Your task to perform on an android device: turn off improve location accuracy Image 0: 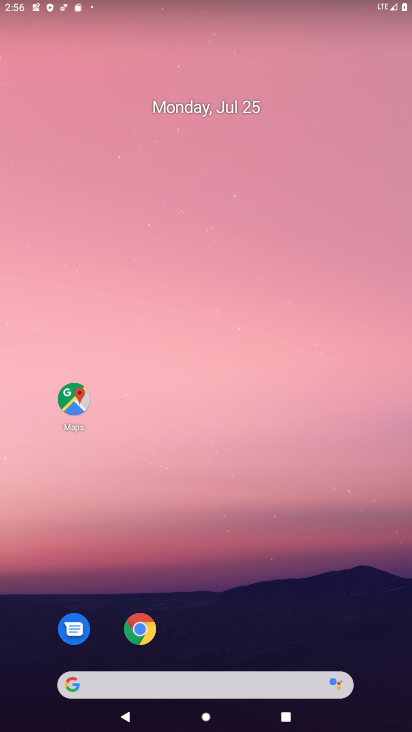
Step 0: click (246, 45)
Your task to perform on an android device: turn off improve location accuracy Image 1: 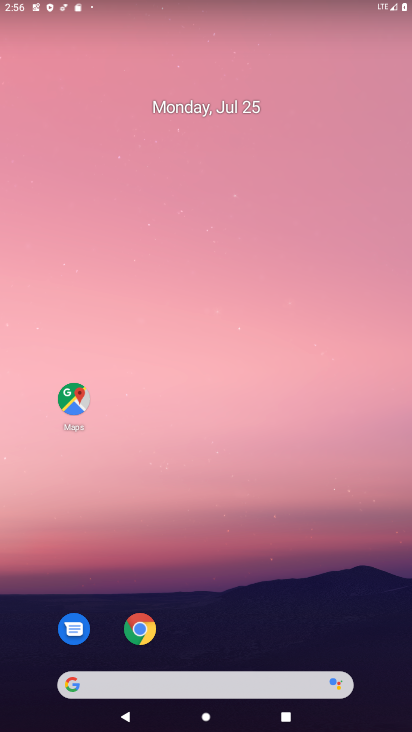
Step 1: drag from (237, 20) to (139, 3)
Your task to perform on an android device: turn off improve location accuracy Image 2: 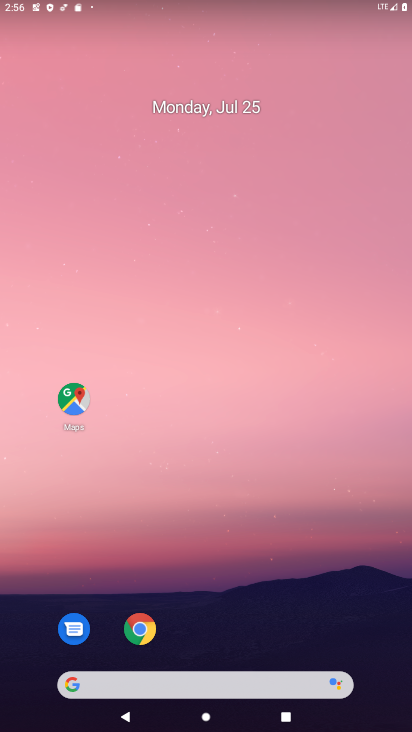
Step 2: drag from (229, 626) to (260, 3)
Your task to perform on an android device: turn off improve location accuracy Image 3: 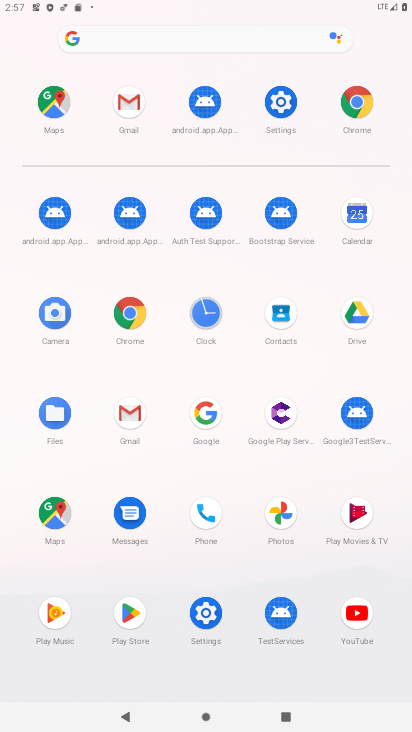
Step 3: click (199, 620)
Your task to perform on an android device: turn off improve location accuracy Image 4: 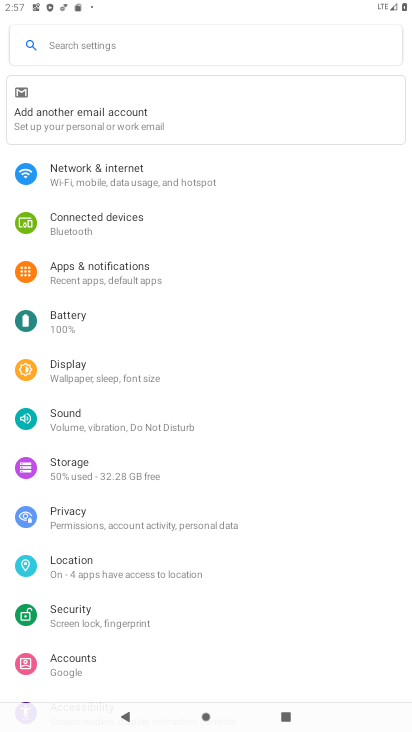
Step 4: click (90, 567)
Your task to perform on an android device: turn off improve location accuracy Image 5: 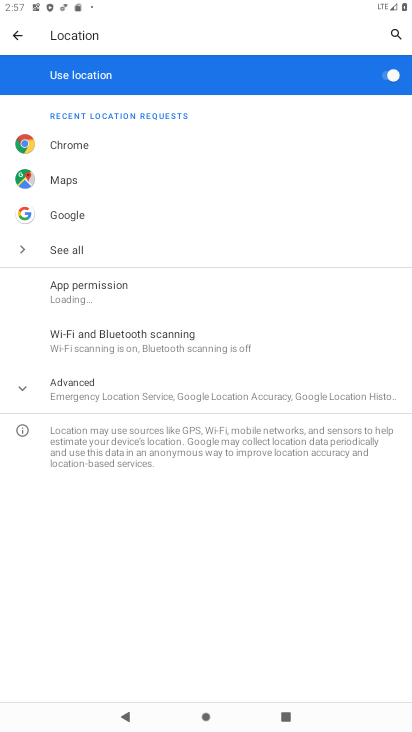
Step 5: click (108, 400)
Your task to perform on an android device: turn off improve location accuracy Image 6: 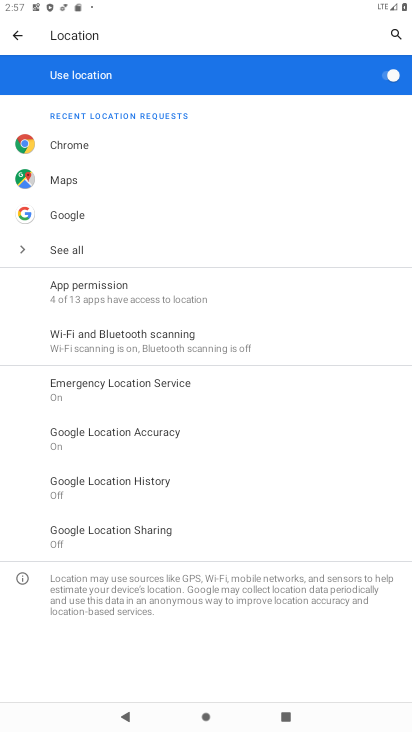
Step 6: click (164, 430)
Your task to perform on an android device: turn off improve location accuracy Image 7: 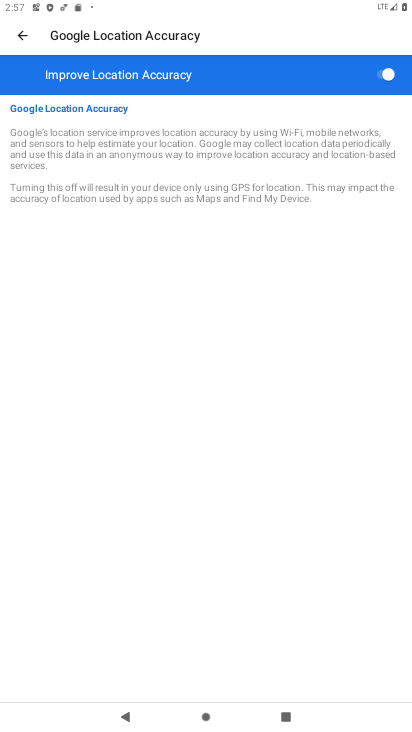
Step 7: click (376, 77)
Your task to perform on an android device: turn off improve location accuracy Image 8: 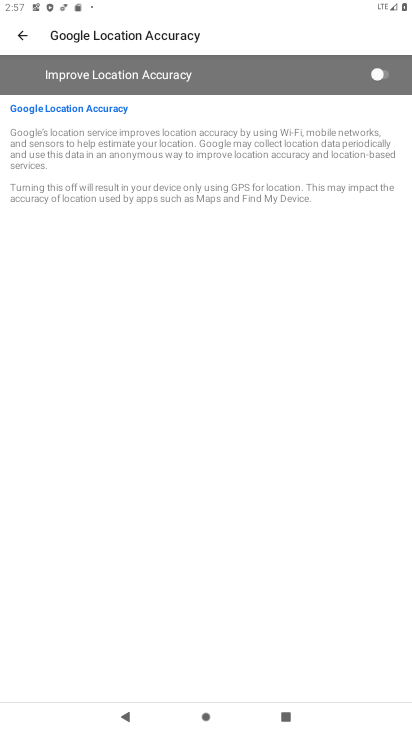
Step 8: task complete